Your task to perform on an android device: Open Google Image 0: 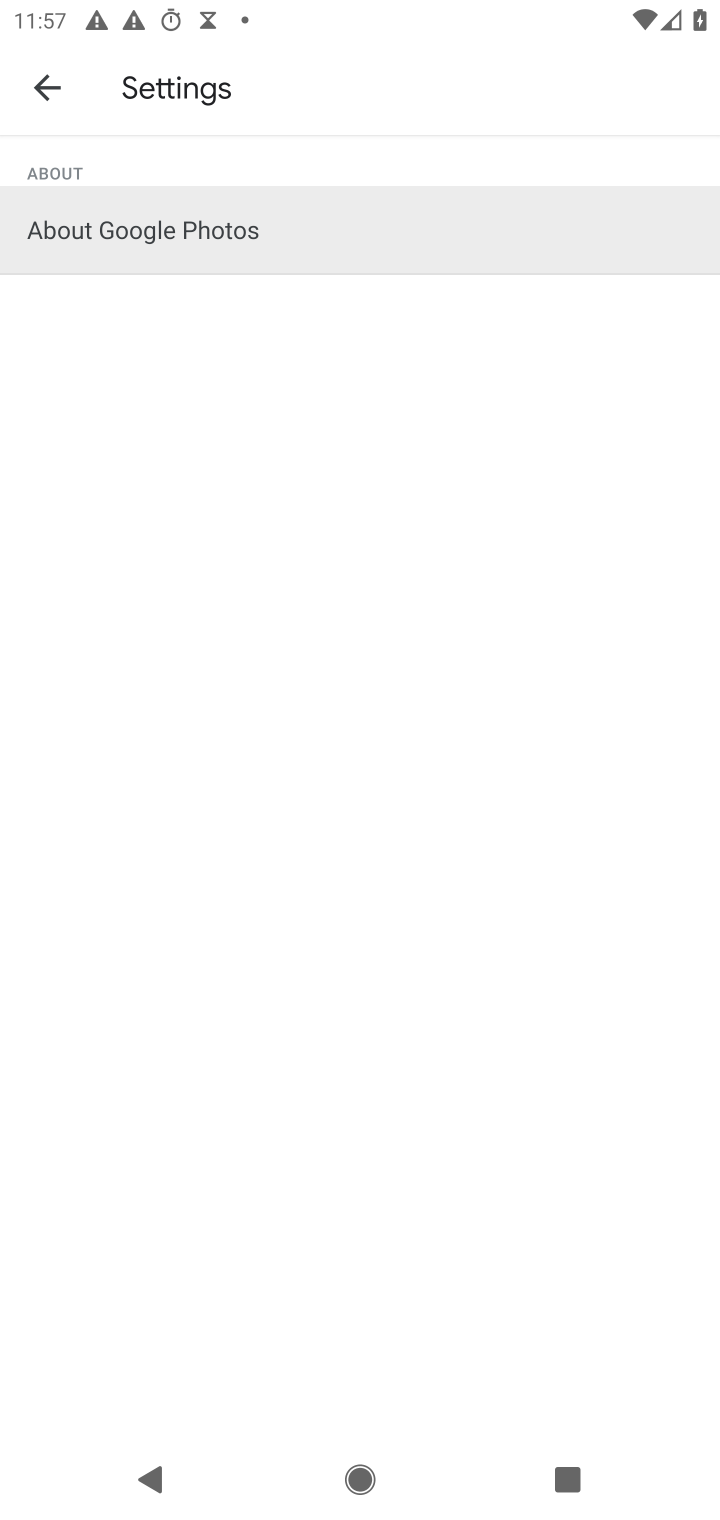
Step 0: press home button
Your task to perform on an android device: Open Google Image 1: 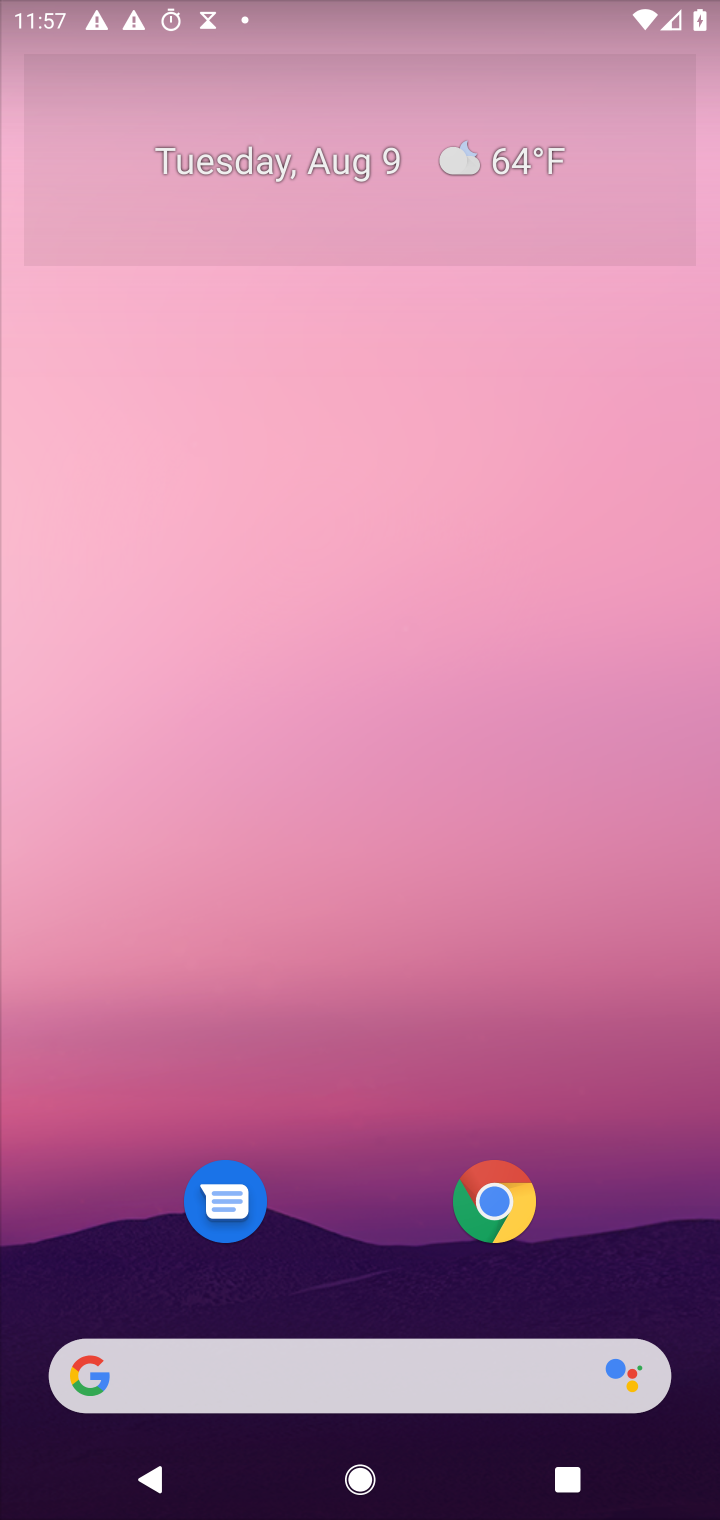
Step 1: drag from (366, 1200) to (361, 323)
Your task to perform on an android device: Open Google Image 2: 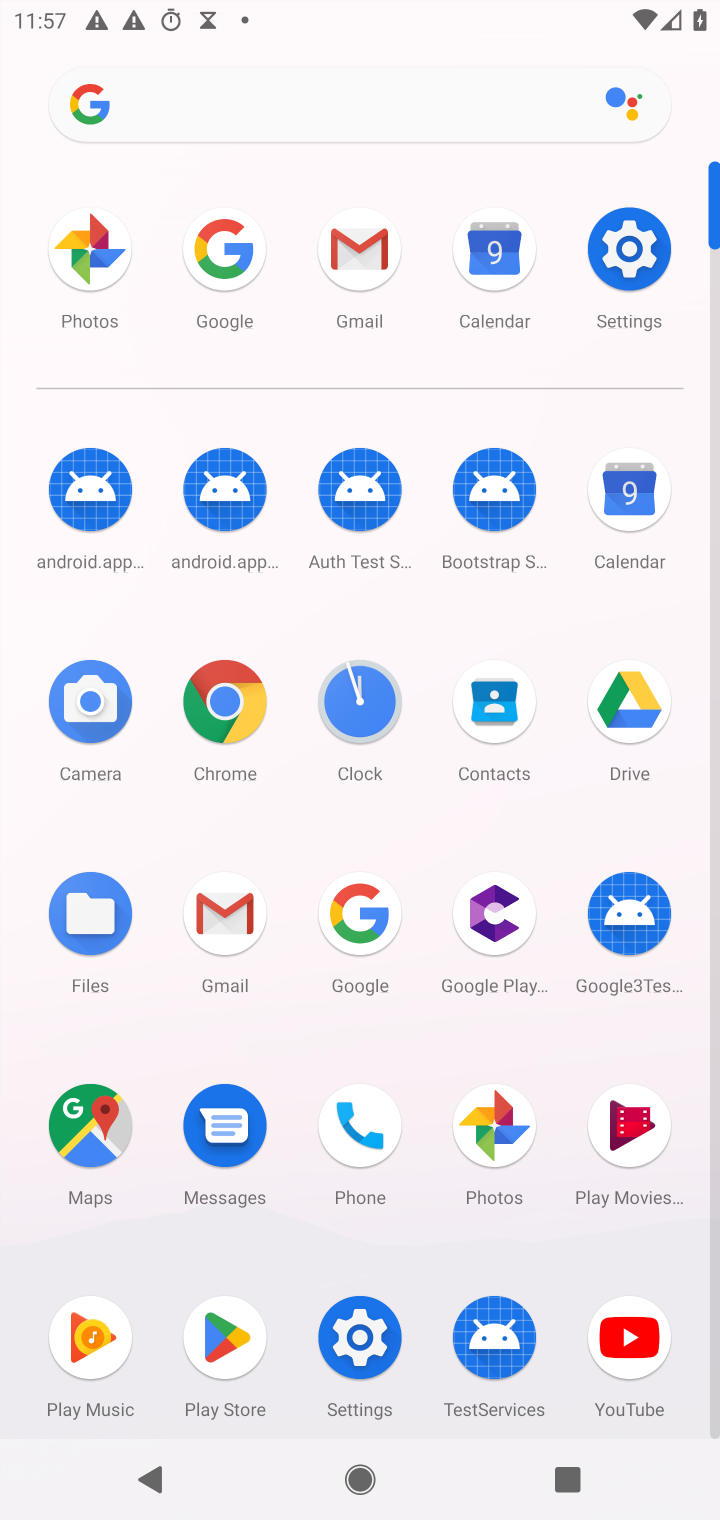
Step 2: click (365, 926)
Your task to perform on an android device: Open Google Image 3: 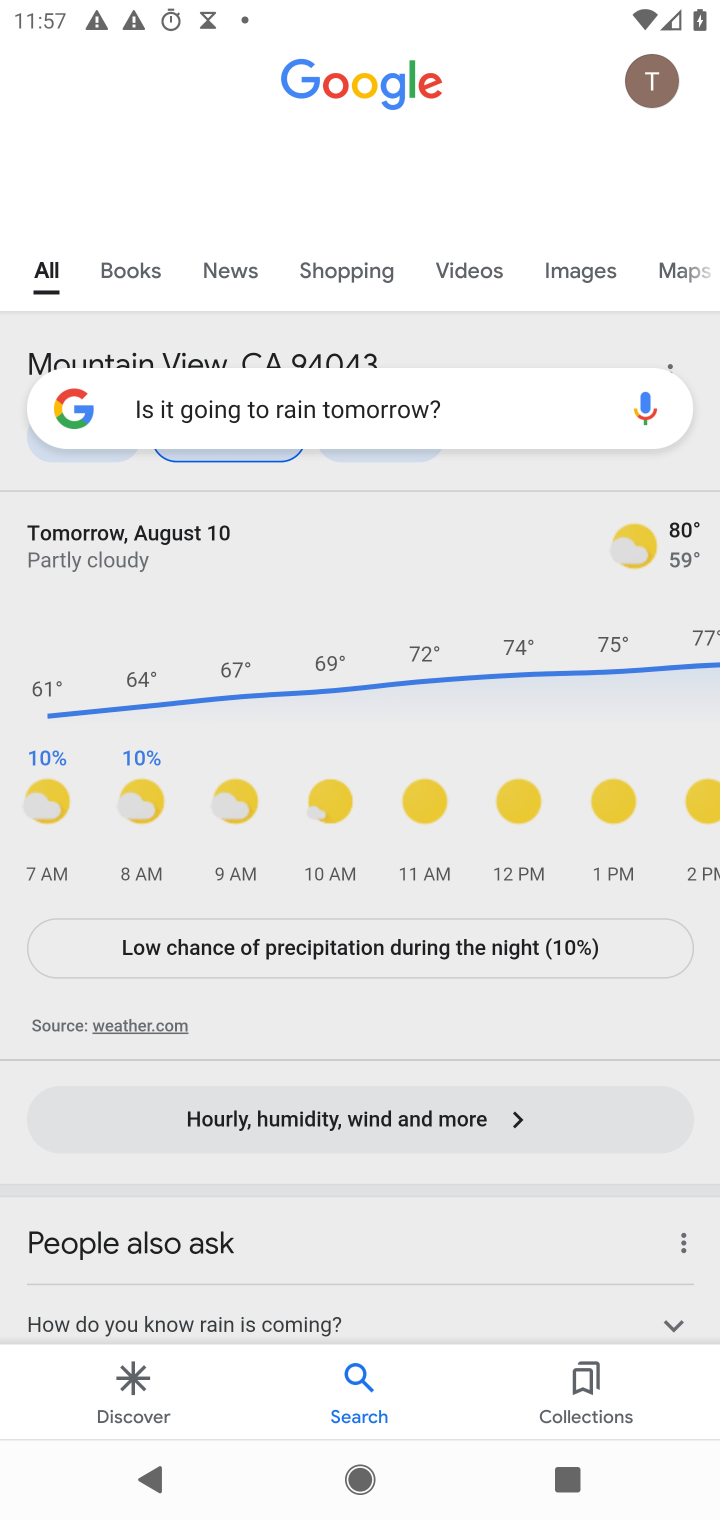
Step 3: click (384, 81)
Your task to perform on an android device: Open Google Image 4: 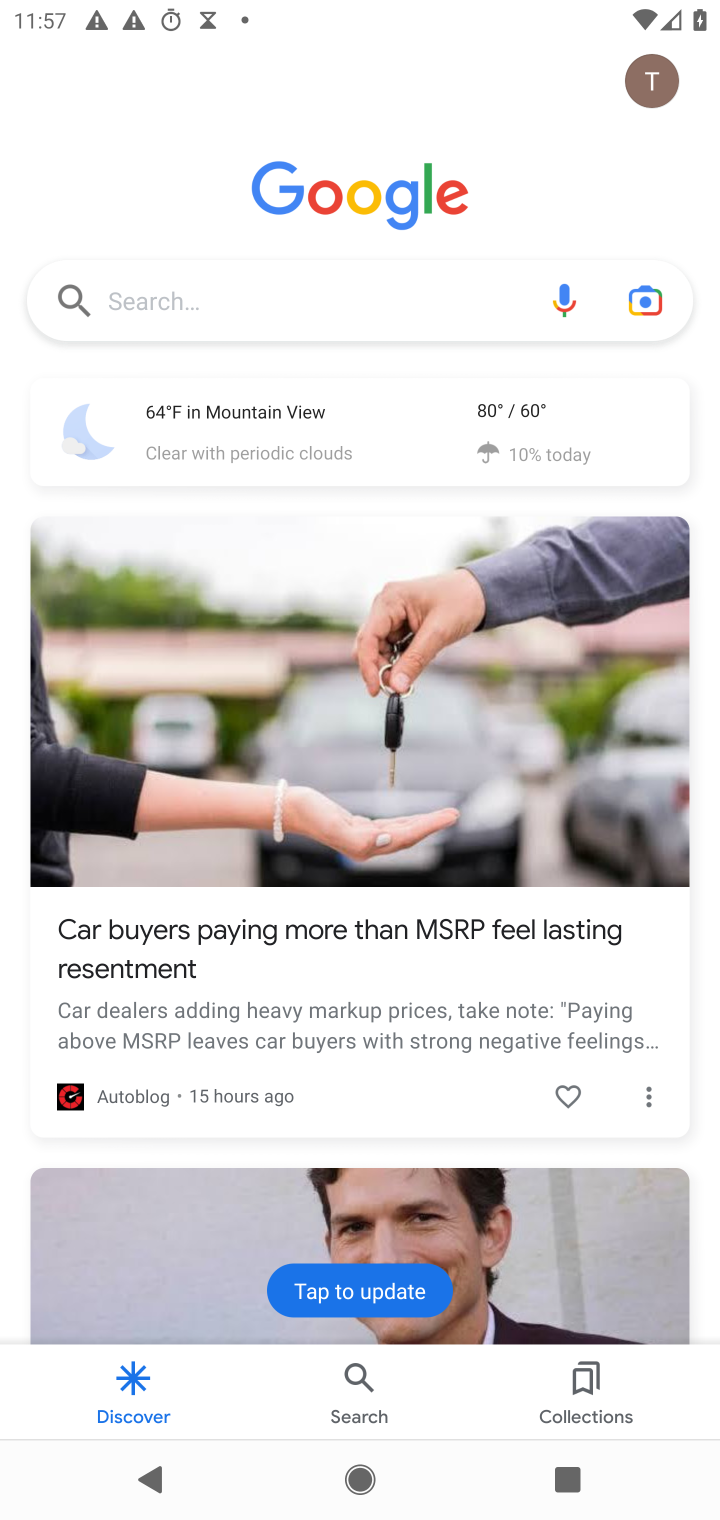
Step 4: task complete